Your task to perform on an android device: Go to eBay Image 0: 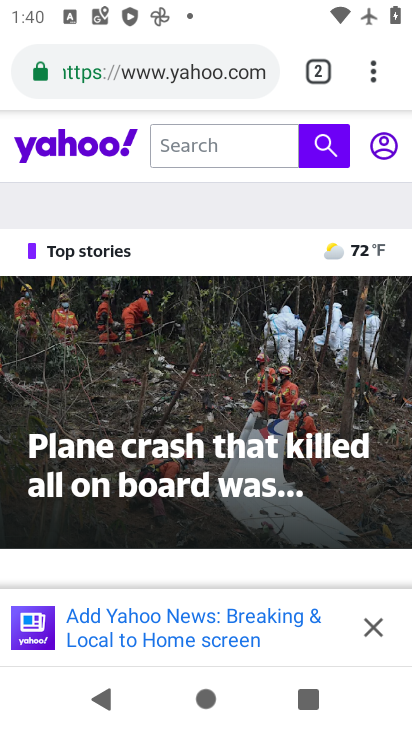
Step 0: press home button
Your task to perform on an android device: Go to eBay Image 1: 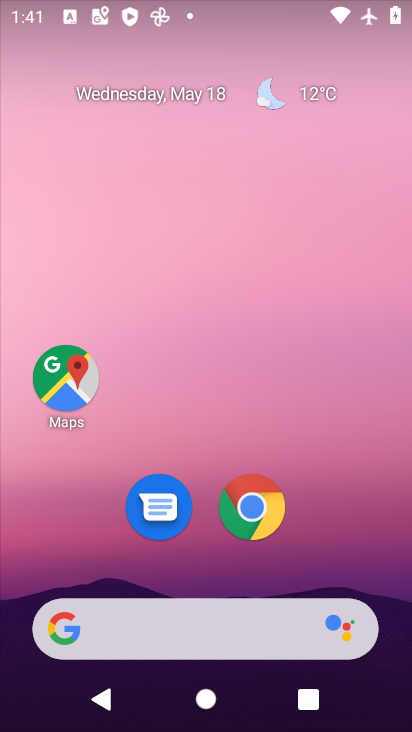
Step 1: click (255, 515)
Your task to perform on an android device: Go to eBay Image 2: 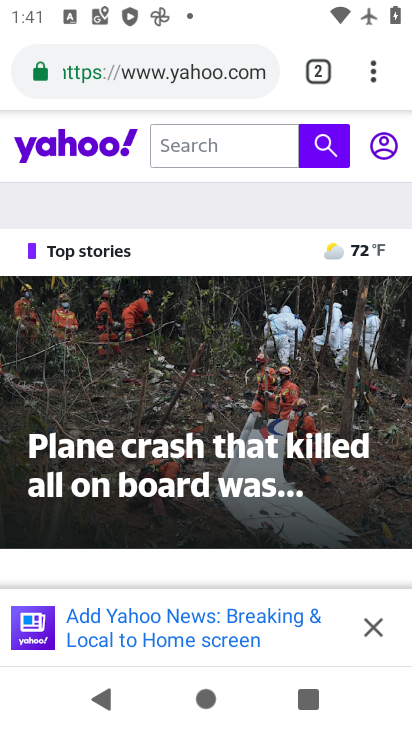
Step 2: click (188, 56)
Your task to perform on an android device: Go to eBay Image 3: 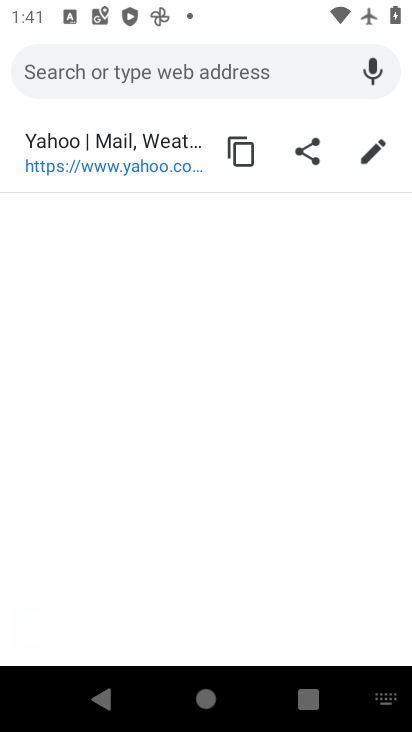
Step 3: type "ebay"
Your task to perform on an android device: Go to eBay Image 4: 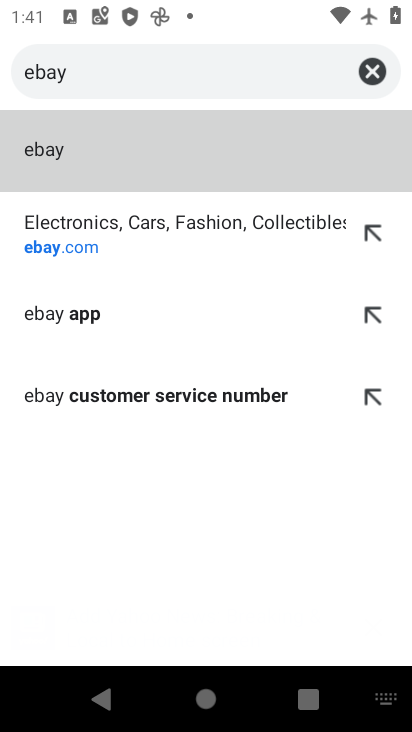
Step 4: click (94, 160)
Your task to perform on an android device: Go to eBay Image 5: 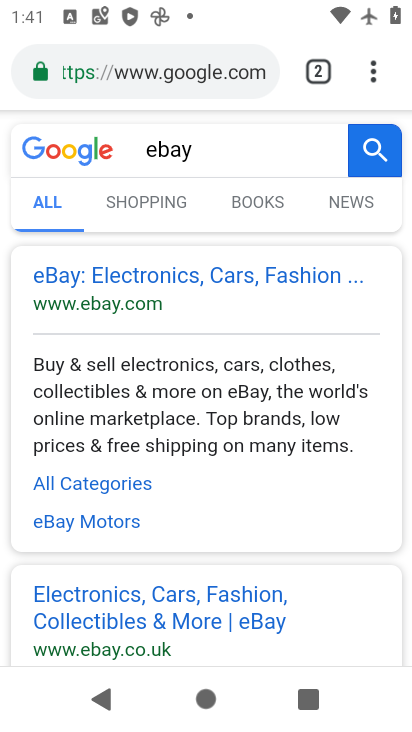
Step 5: click (100, 285)
Your task to perform on an android device: Go to eBay Image 6: 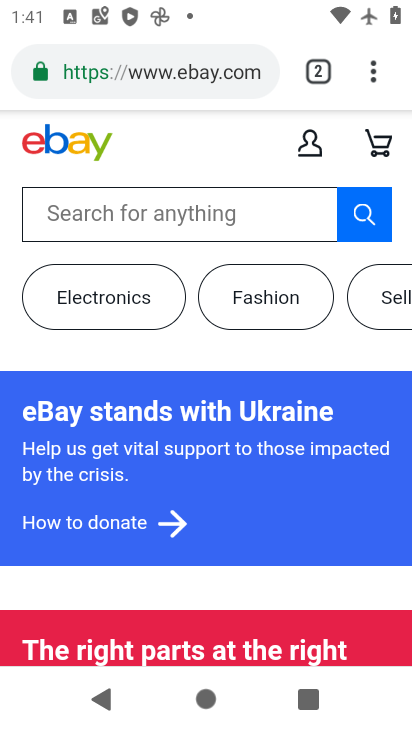
Step 6: task complete